Your task to perform on an android device: set the stopwatch Image 0: 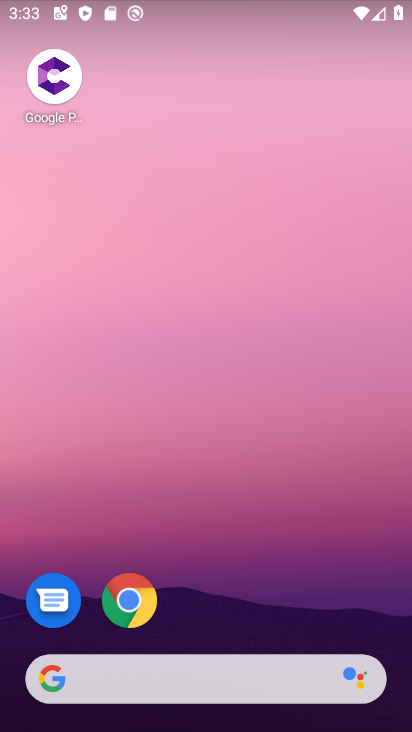
Step 0: drag from (341, 625) to (376, 18)
Your task to perform on an android device: set the stopwatch Image 1: 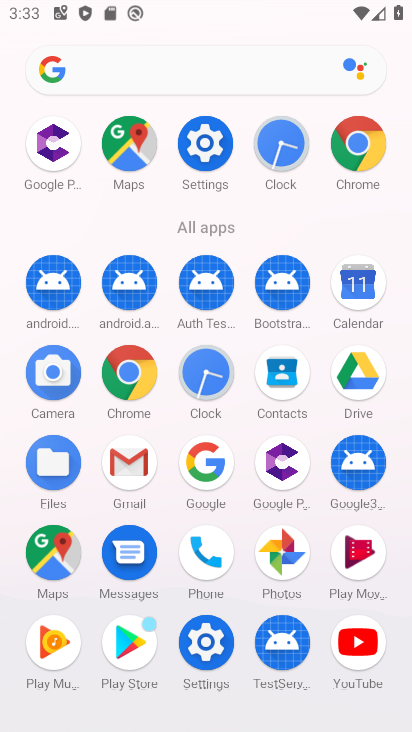
Step 1: click (272, 152)
Your task to perform on an android device: set the stopwatch Image 2: 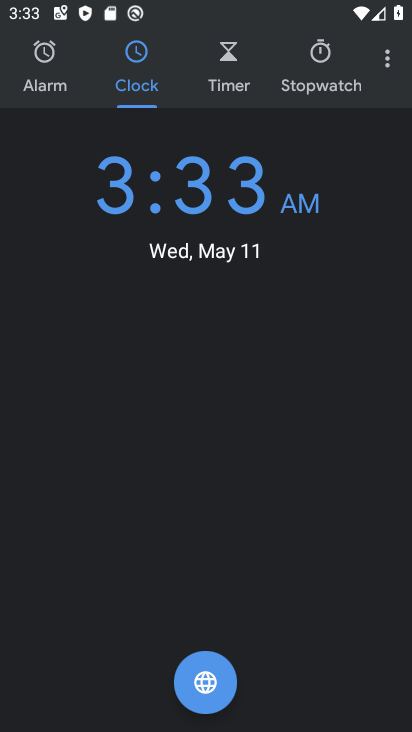
Step 2: click (315, 68)
Your task to perform on an android device: set the stopwatch Image 3: 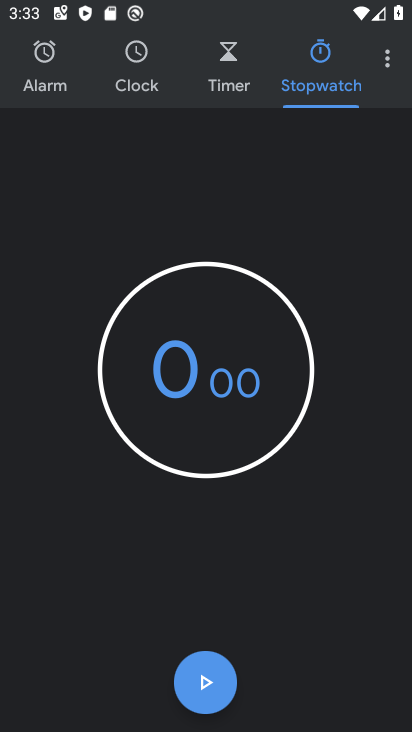
Step 3: click (206, 688)
Your task to perform on an android device: set the stopwatch Image 4: 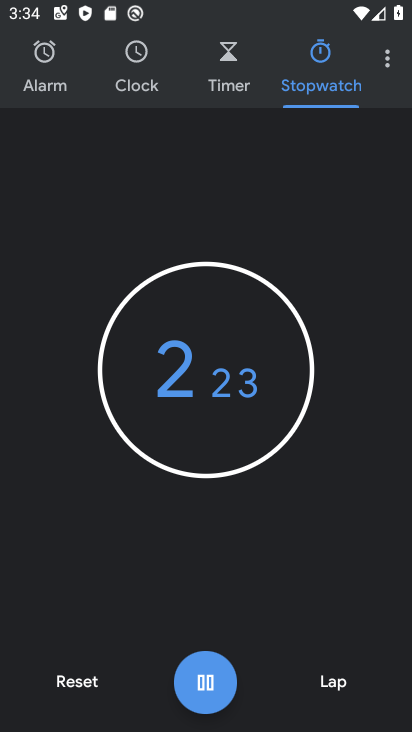
Step 4: click (213, 682)
Your task to perform on an android device: set the stopwatch Image 5: 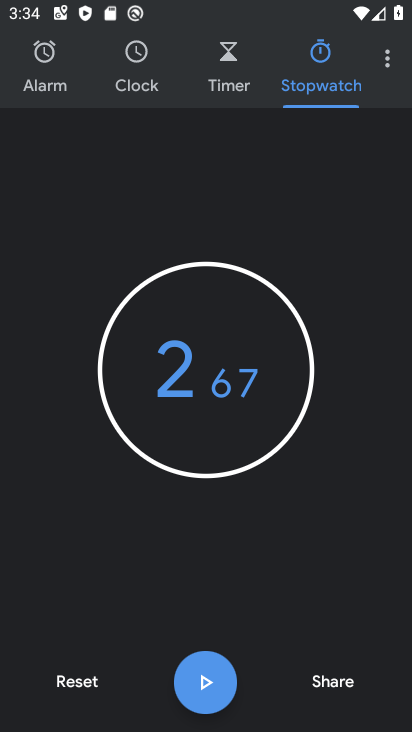
Step 5: task complete